Your task to perform on an android device: turn on priority inbox in the gmail app Image 0: 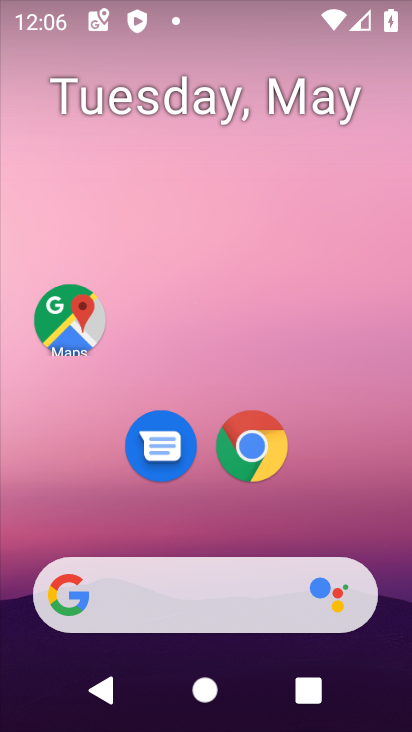
Step 0: drag from (322, 475) to (325, 48)
Your task to perform on an android device: turn on priority inbox in the gmail app Image 1: 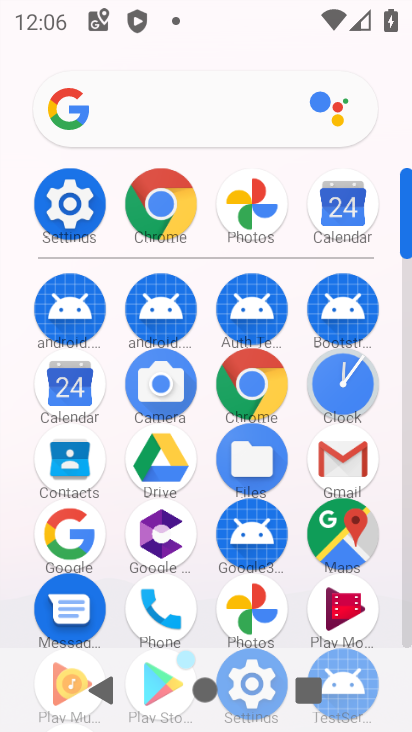
Step 1: click (364, 452)
Your task to perform on an android device: turn on priority inbox in the gmail app Image 2: 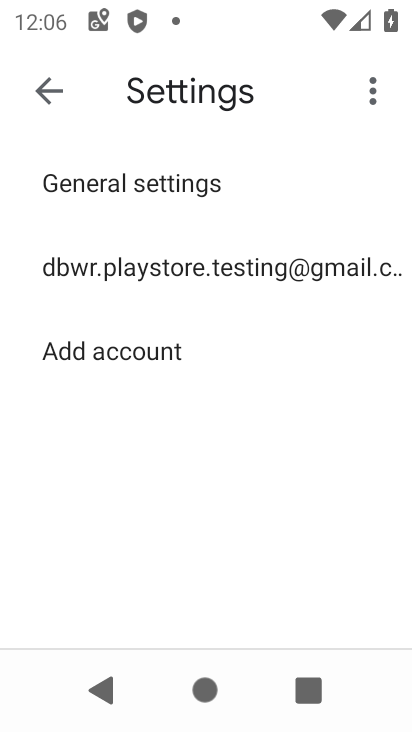
Step 2: click (78, 294)
Your task to perform on an android device: turn on priority inbox in the gmail app Image 3: 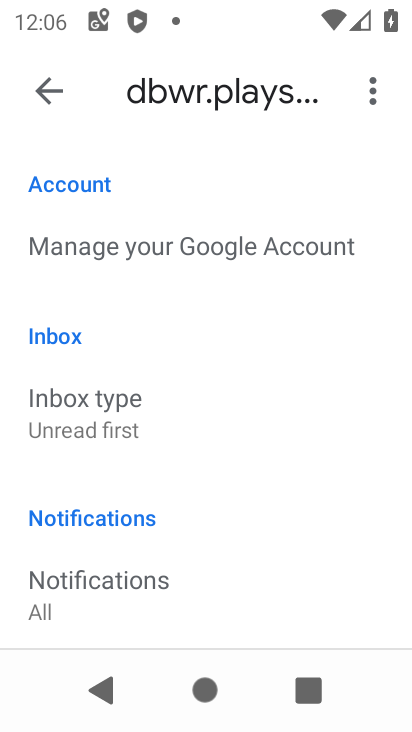
Step 3: drag from (156, 545) to (146, 338)
Your task to perform on an android device: turn on priority inbox in the gmail app Image 4: 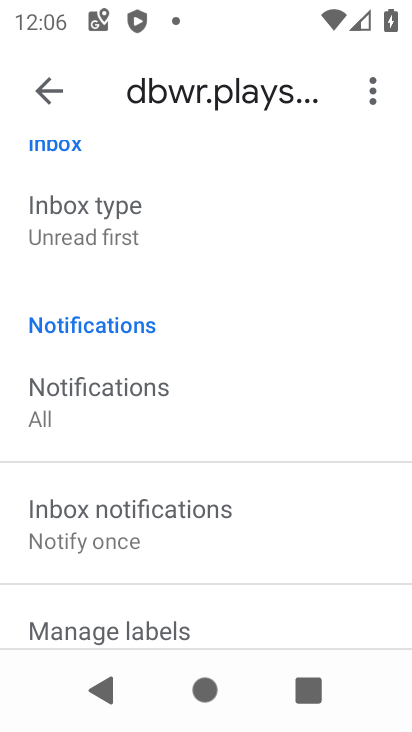
Step 4: click (87, 233)
Your task to perform on an android device: turn on priority inbox in the gmail app Image 5: 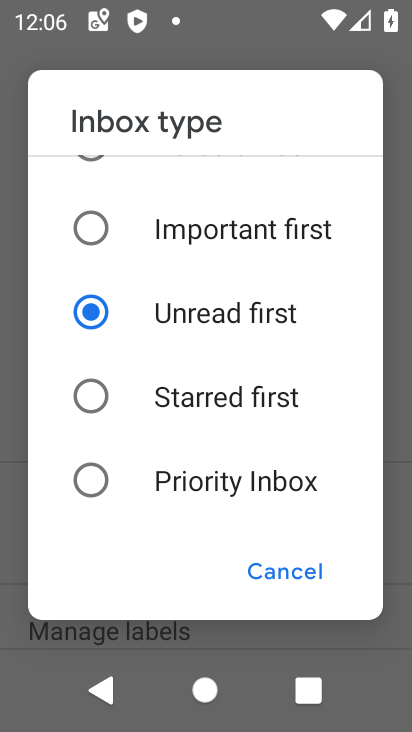
Step 5: click (158, 496)
Your task to perform on an android device: turn on priority inbox in the gmail app Image 6: 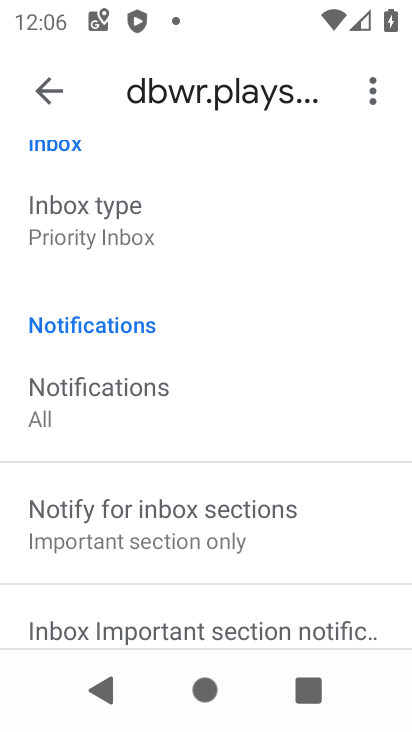
Step 6: task complete